Your task to perform on an android device: What's on the menu at Chick-fil-A? Image 0: 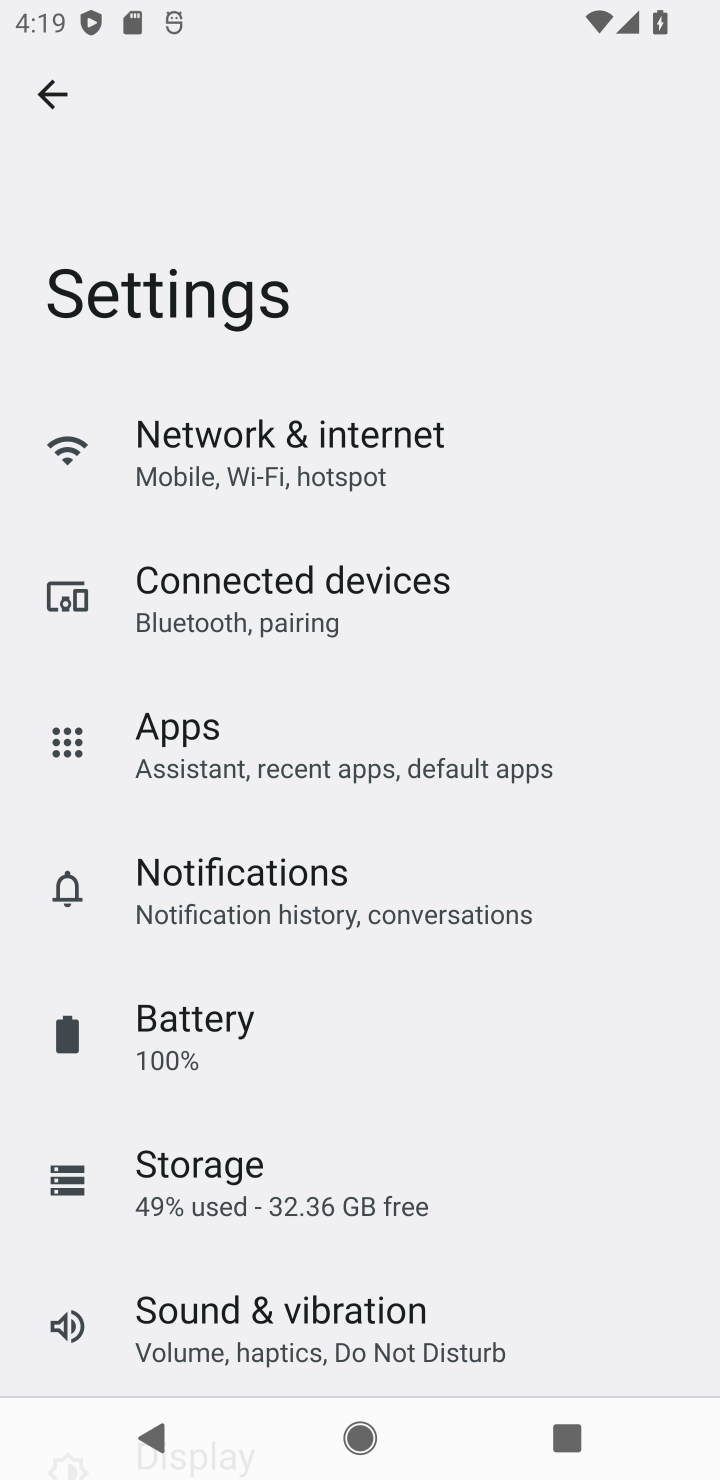
Step 0: press home button
Your task to perform on an android device: What's on the menu at Chick-fil-A? Image 1: 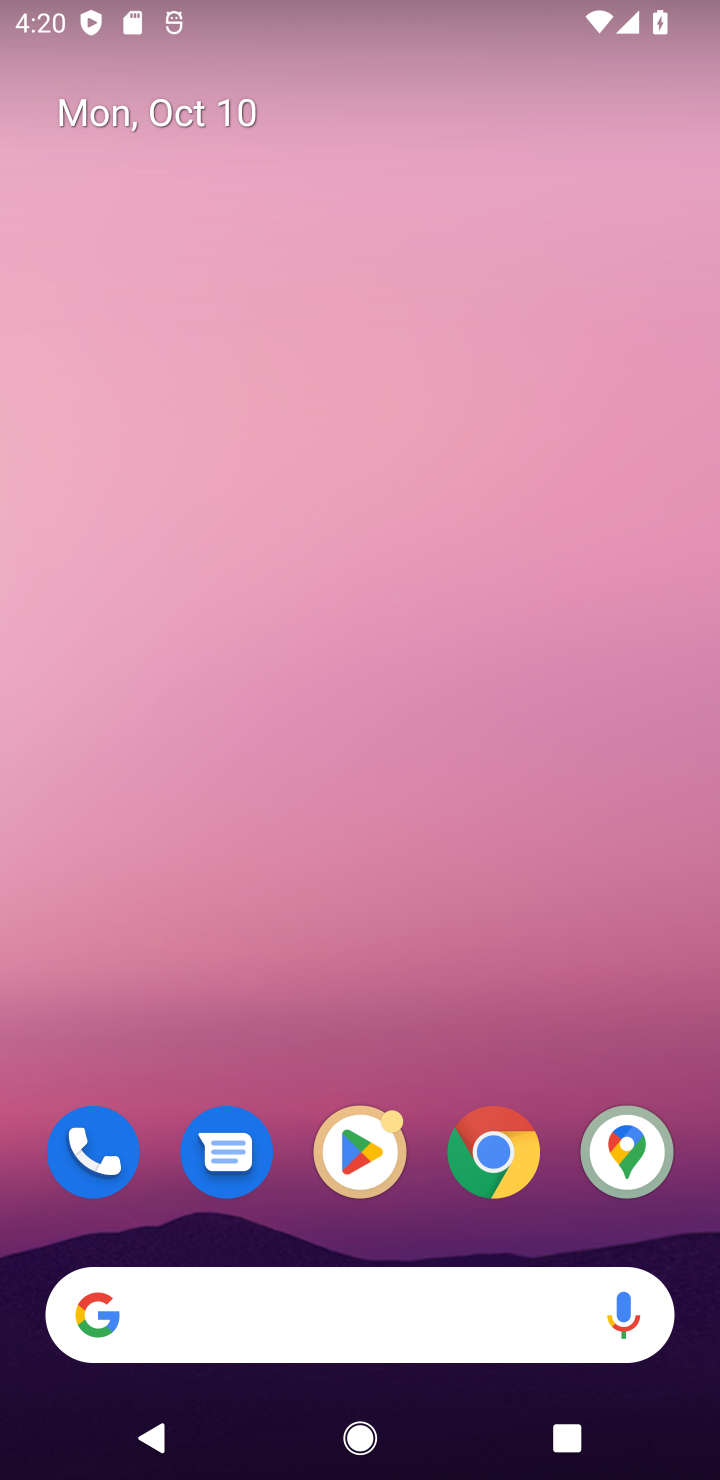
Step 1: click (494, 1155)
Your task to perform on an android device: What's on the menu at Chick-fil-A? Image 2: 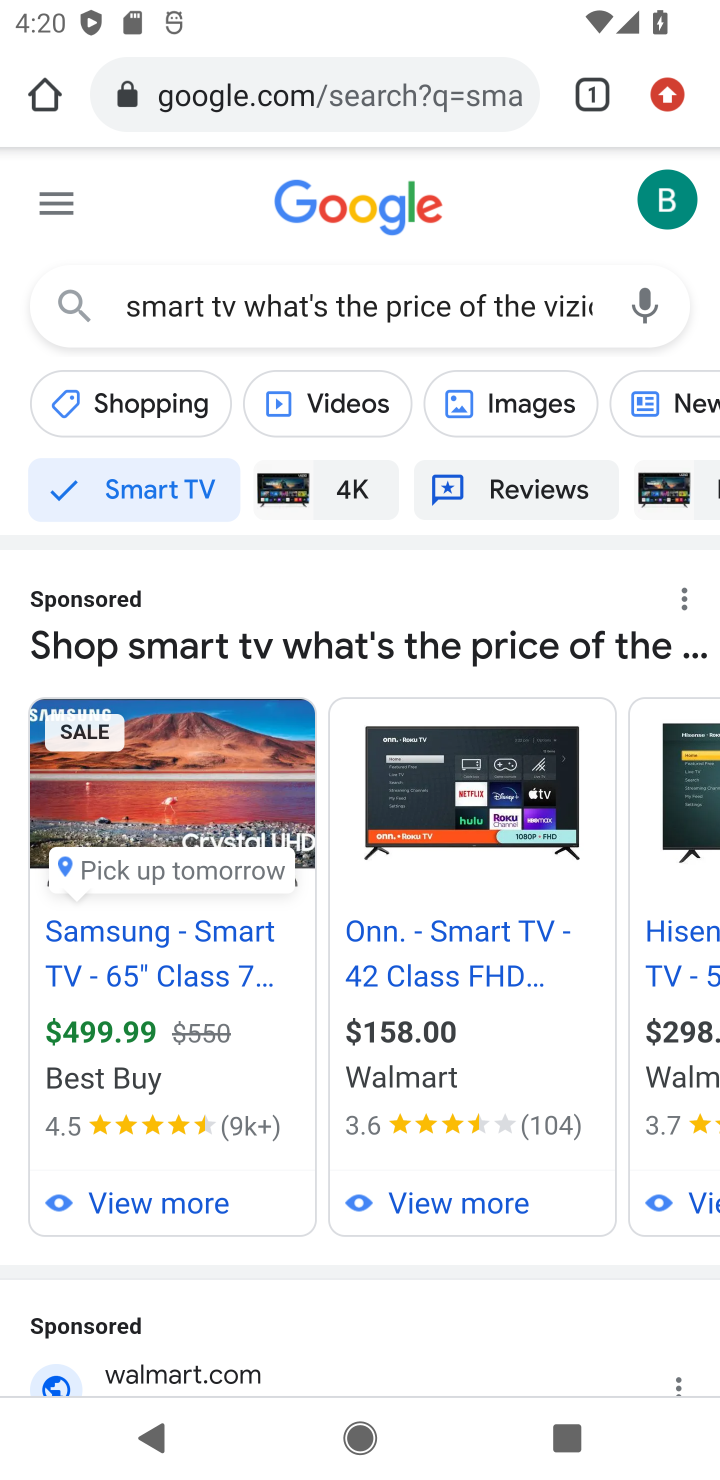
Step 2: click (386, 97)
Your task to perform on an android device: What's on the menu at Chick-fil-A? Image 3: 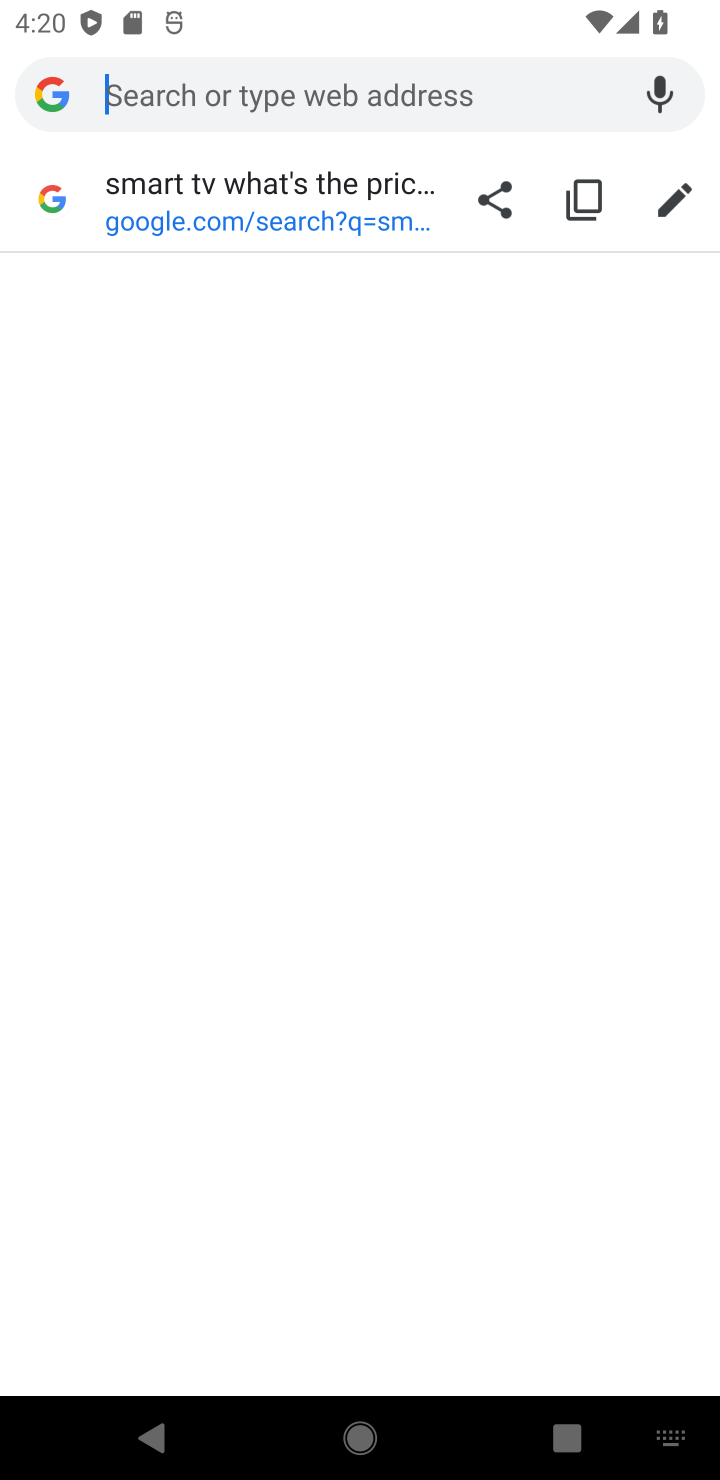
Step 3: type "What's on the menu at Chick-fil-A?"
Your task to perform on an android device: What's on the menu at Chick-fil-A? Image 4: 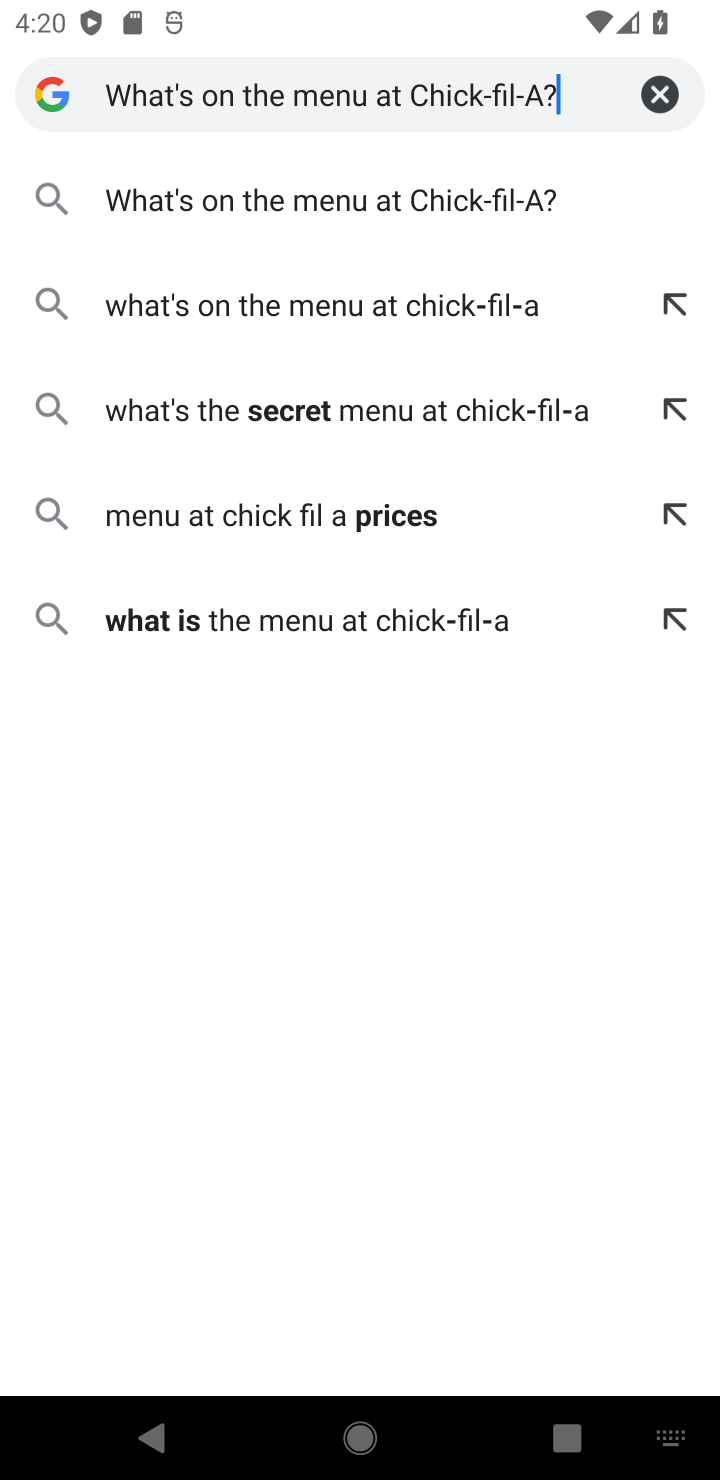
Step 4: click (454, 207)
Your task to perform on an android device: What's on the menu at Chick-fil-A? Image 5: 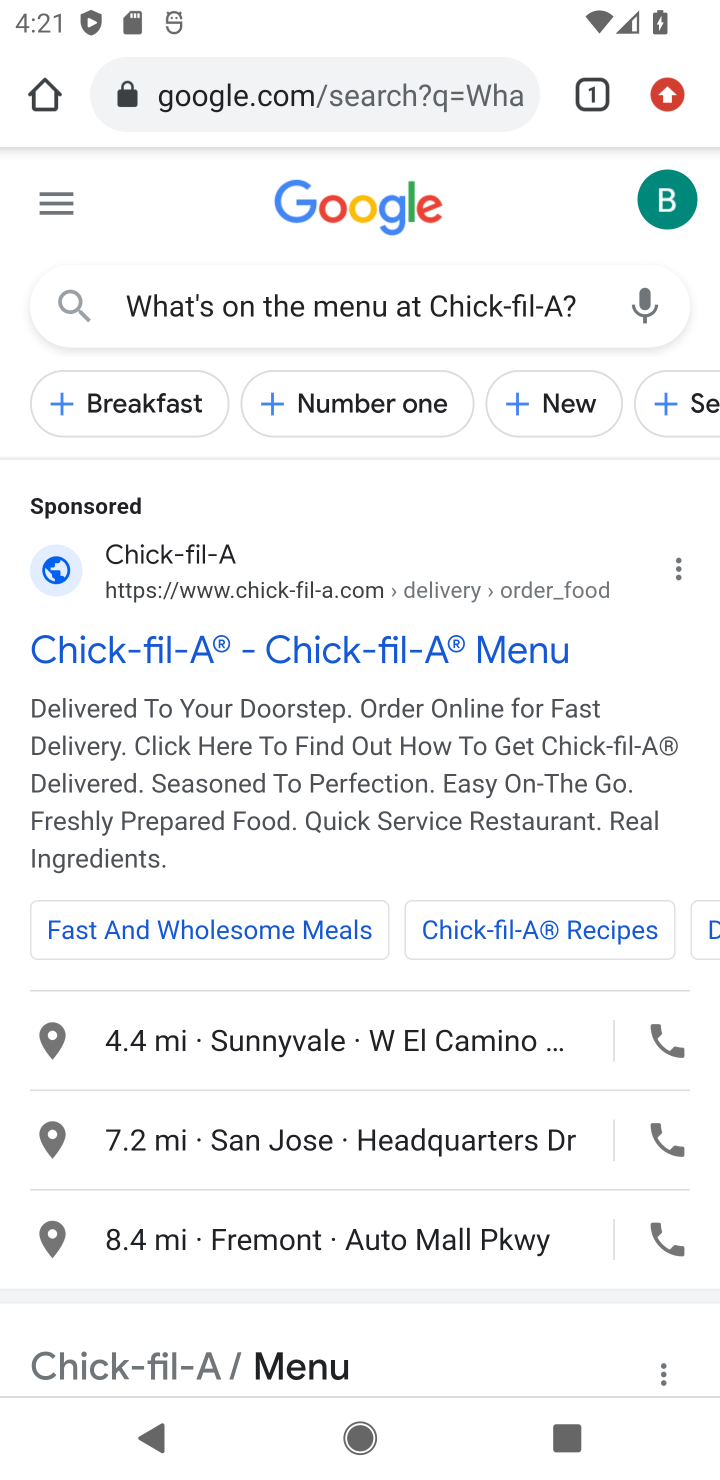
Step 5: drag from (273, 1200) to (506, 733)
Your task to perform on an android device: What's on the menu at Chick-fil-A? Image 6: 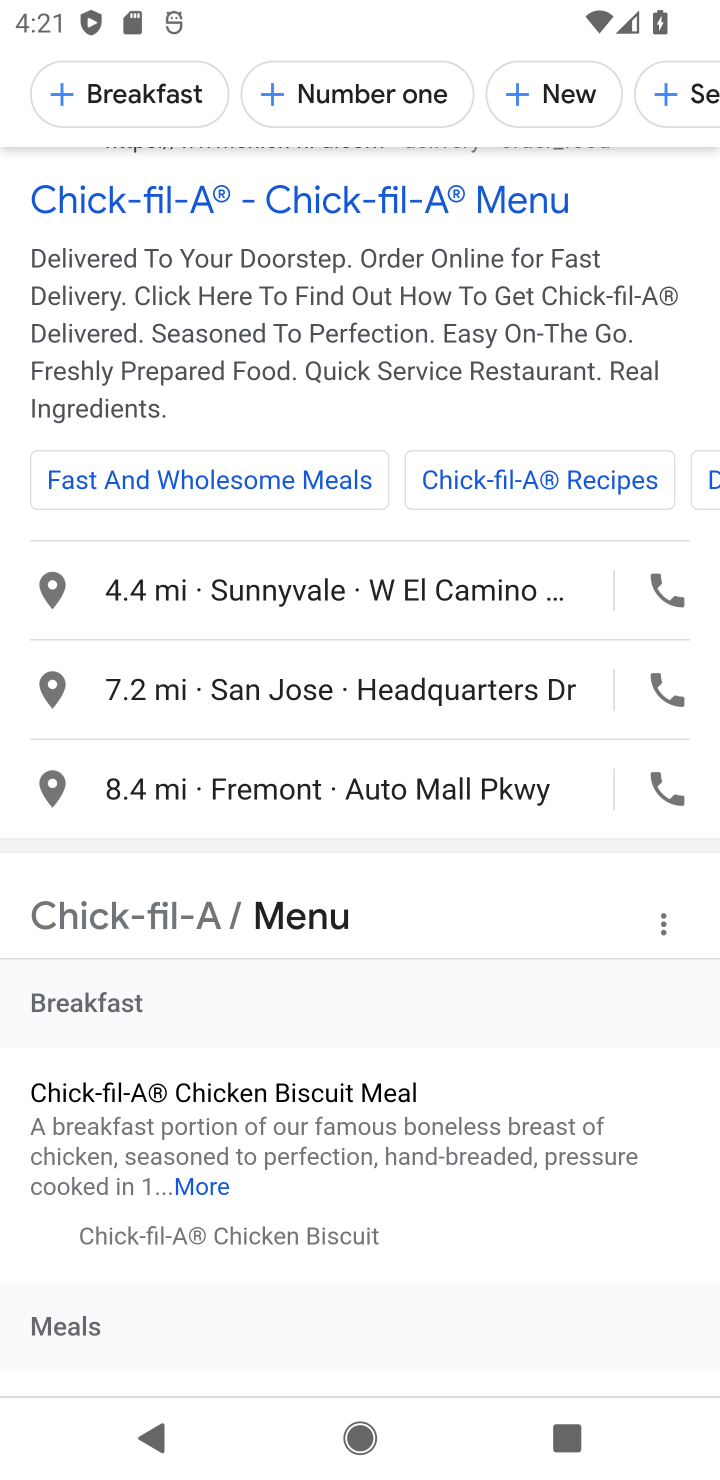
Step 6: drag from (280, 1021) to (517, 683)
Your task to perform on an android device: What's on the menu at Chick-fil-A? Image 7: 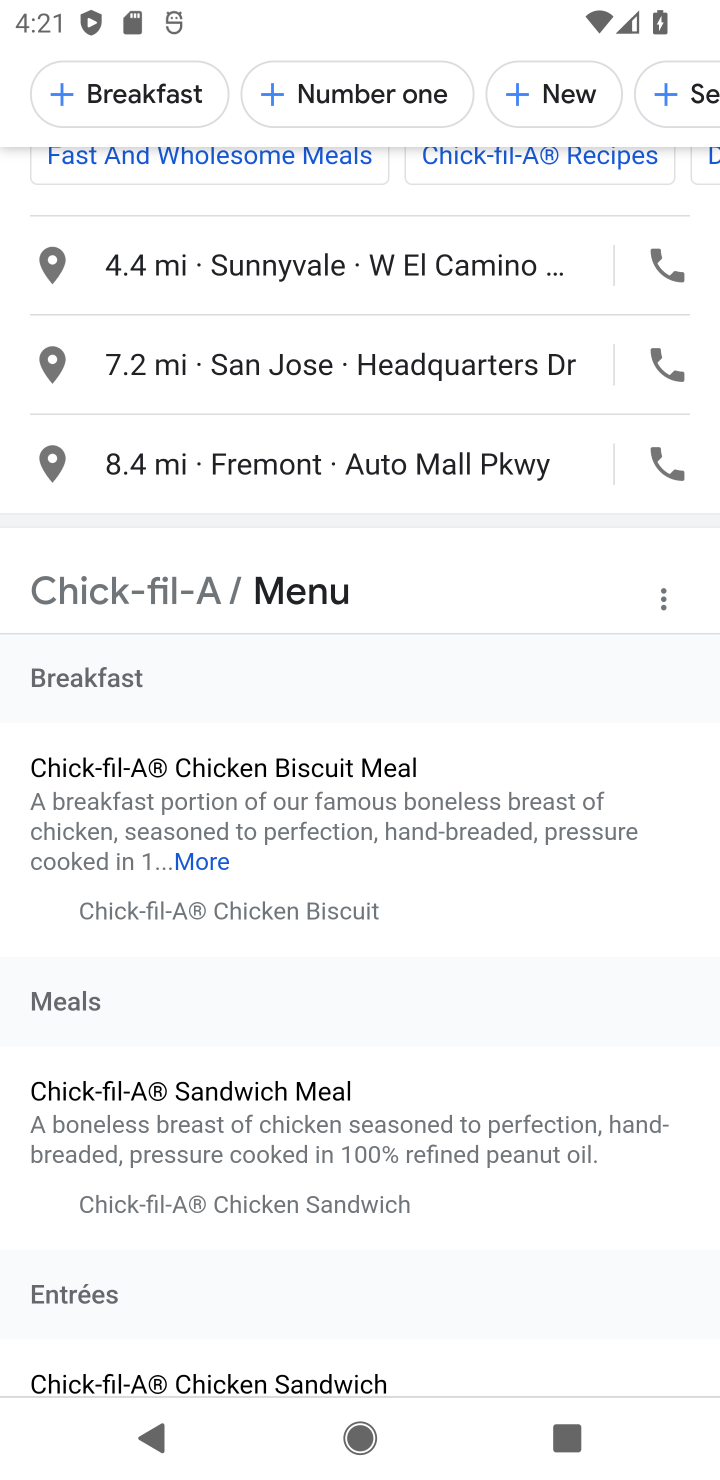
Step 7: drag from (234, 1046) to (452, 710)
Your task to perform on an android device: What's on the menu at Chick-fil-A? Image 8: 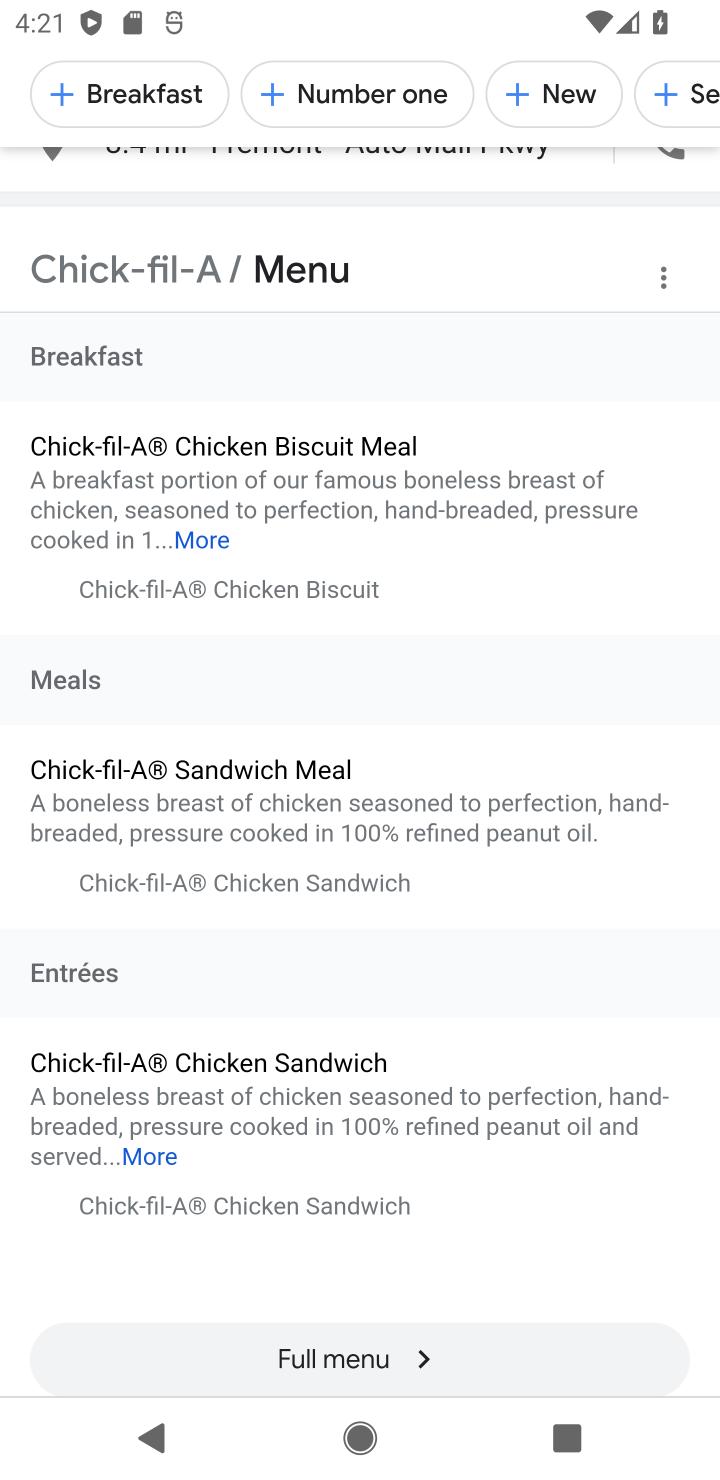
Step 8: drag from (229, 981) to (380, 597)
Your task to perform on an android device: What's on the menu at Chick-fil-A? Image 9: 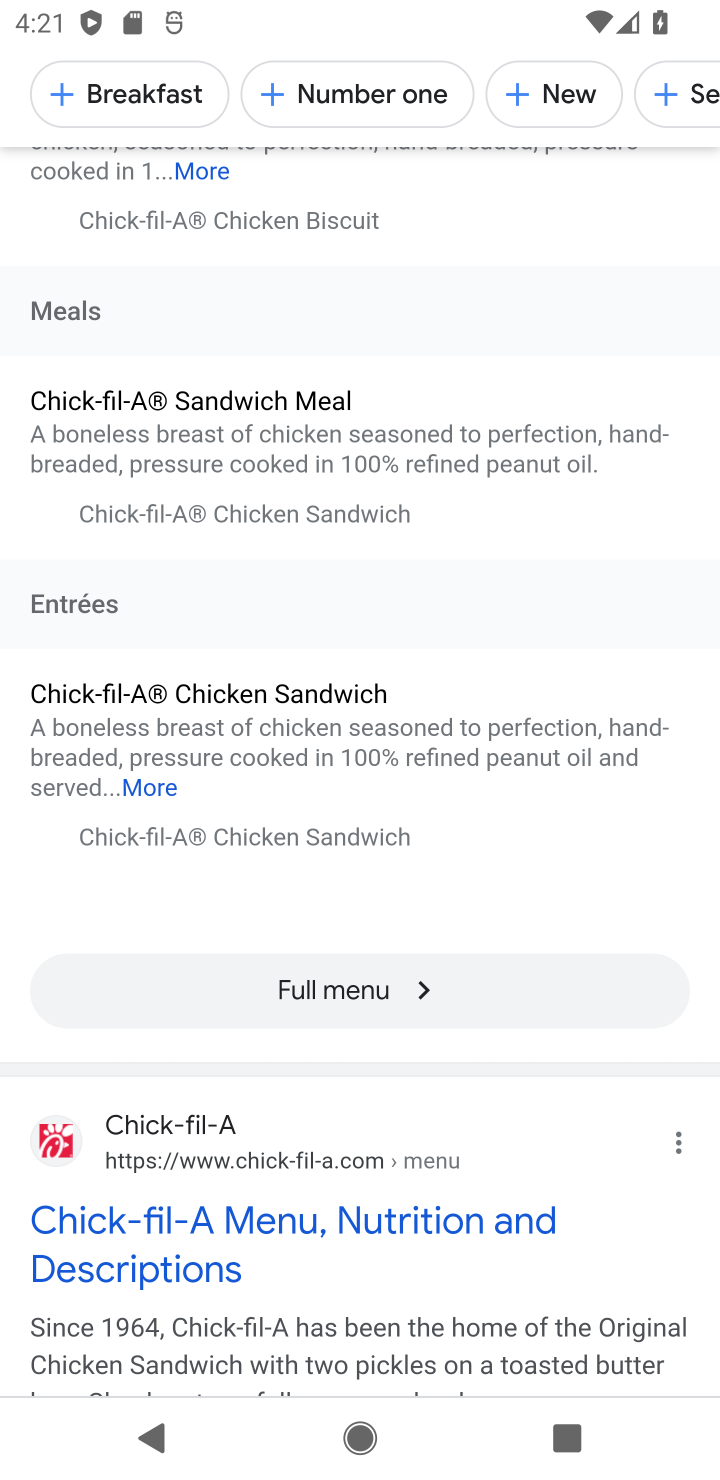
Step 9: click (312, 982)
Your task to perform on an android device: What's on the menu at Chick-fil-A? Image 10: 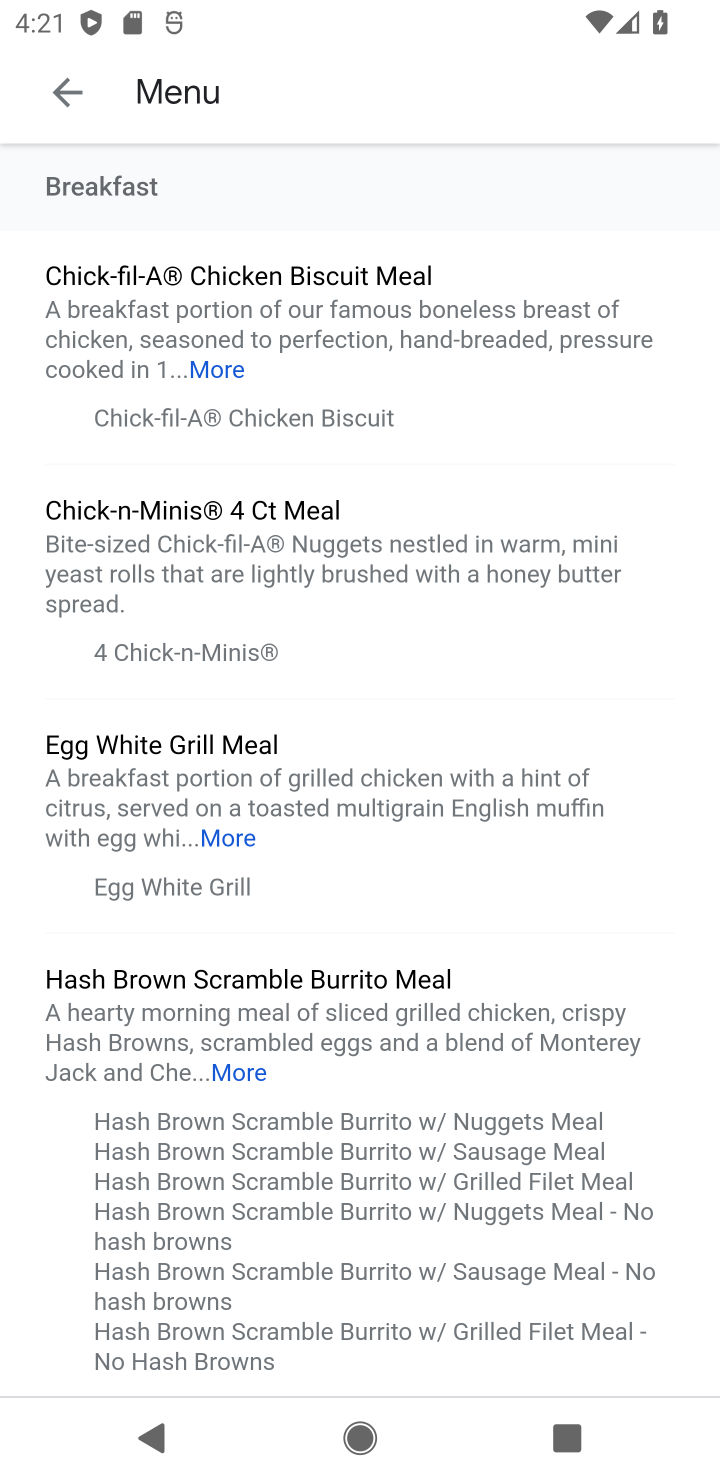
Step 10: task complete